Your task to perform on an android device: Open Youtube and go to the subscriptions tab Image 0: 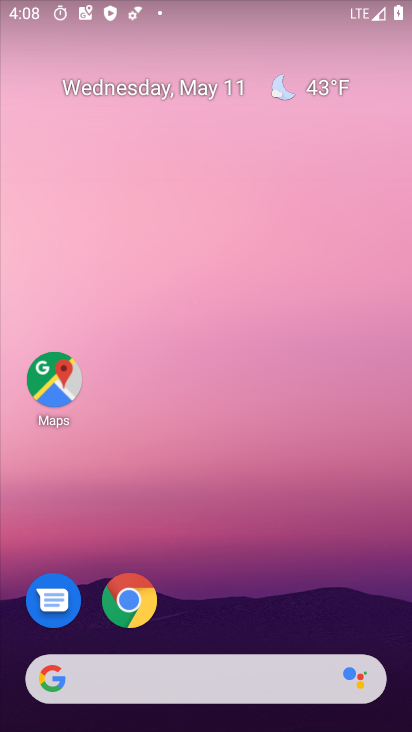
Step 0: drag from (375, 635) to (360, 22)
Your task to perform on an android device: Open Youtube and go to the subscriptions tab Image 1: 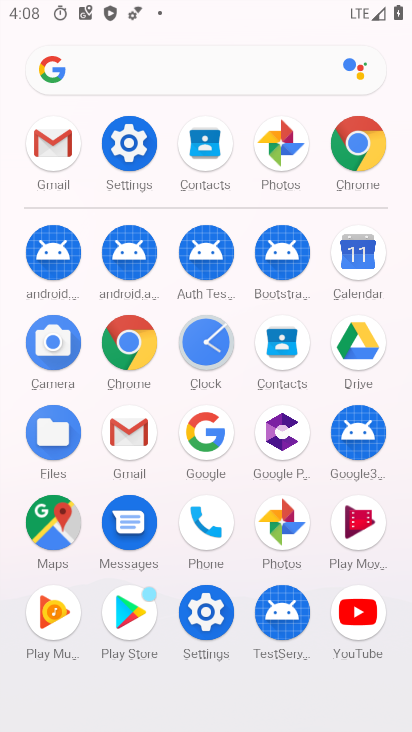
Step 1: click (356, 617)
Your task to perform on an android device: Open Youtube and go to the subscriptions tab Image 2: 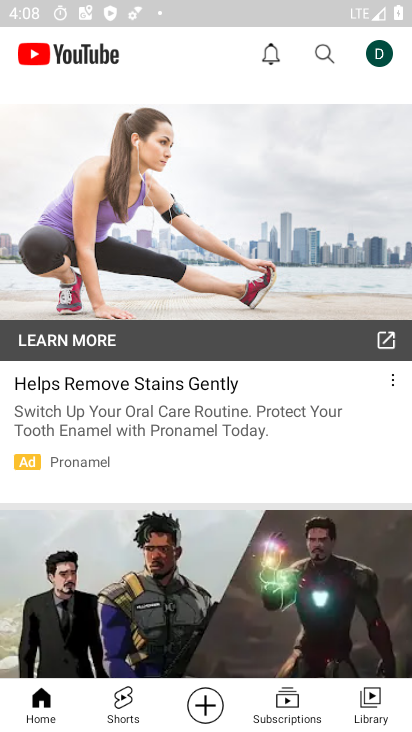
Step 2: click (300, 706)
Your task to perform on an android device: Open Youtube and go to the subscriptions tab Image 3: 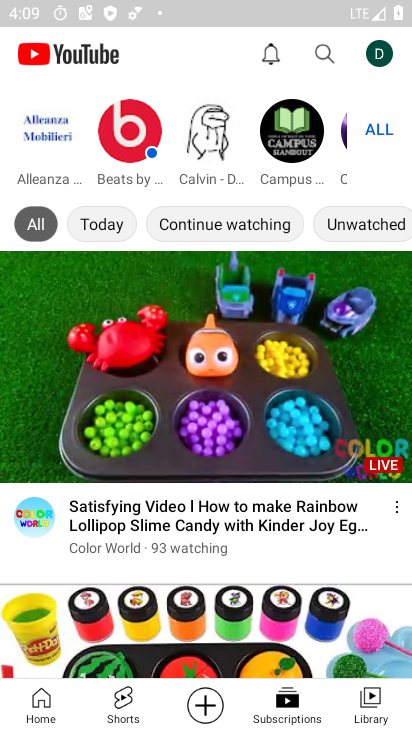
Step 3: task complete